Your task to perform on an android device: Open the stopwatch Image 0: 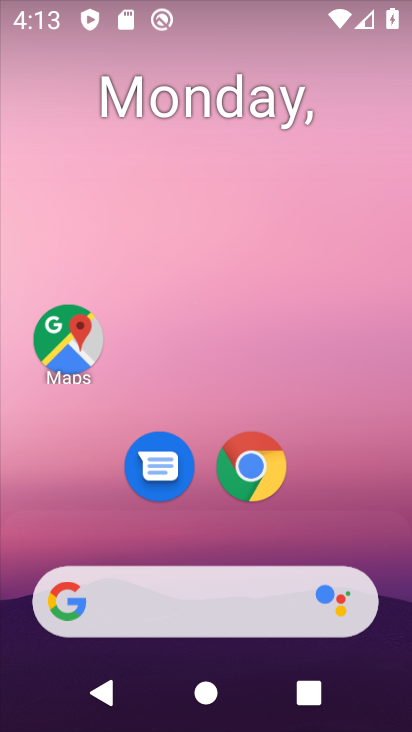
Step 0: drag from (358, 447) to (234, 34)
Your task to perform on an android device: Open the stopwatch Image 1: 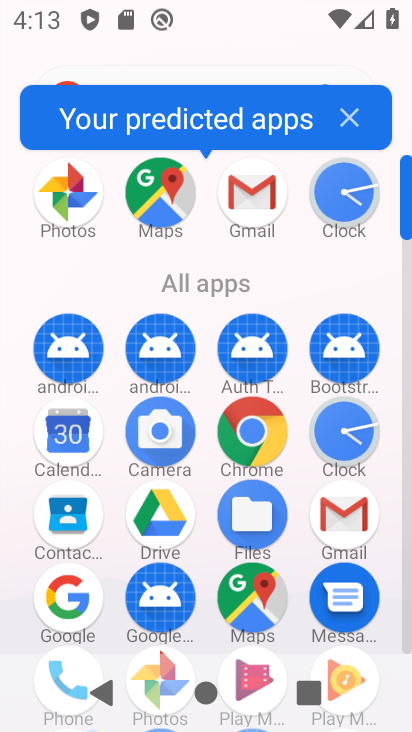
Step 1: click (332, 426)
Your task to perform on an android device: Open the stopwatch Image 2: 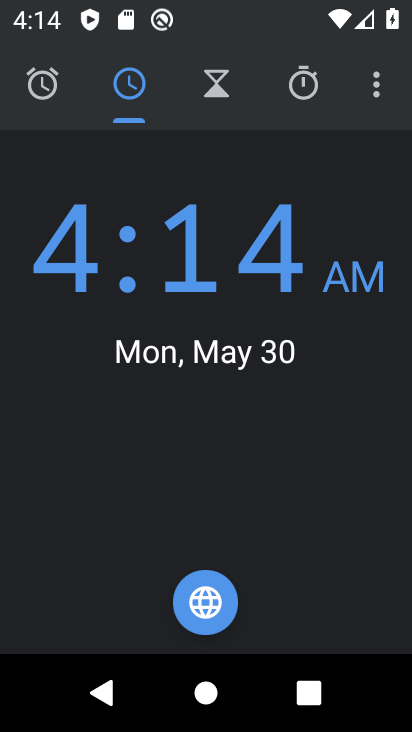
Step 2: click (316, 98)
Your task to perform on an android device: Open the stopwatch Image 3: 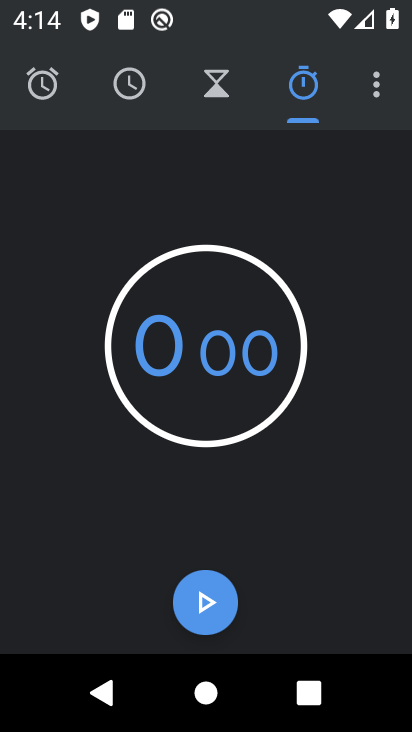
Step 3: task complete